Your task to perform on an android device: Open Google Maps and go to "Timeline" Image 0: 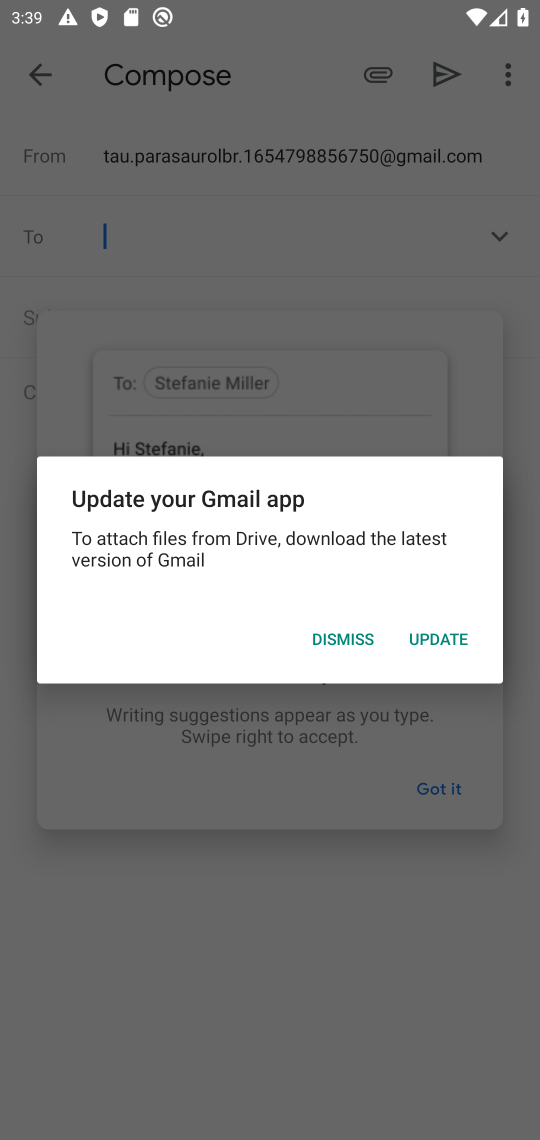
Step 0: press home button
Your task to perform on an android device: Open Google Maps and go to "Timeline" Image 1: 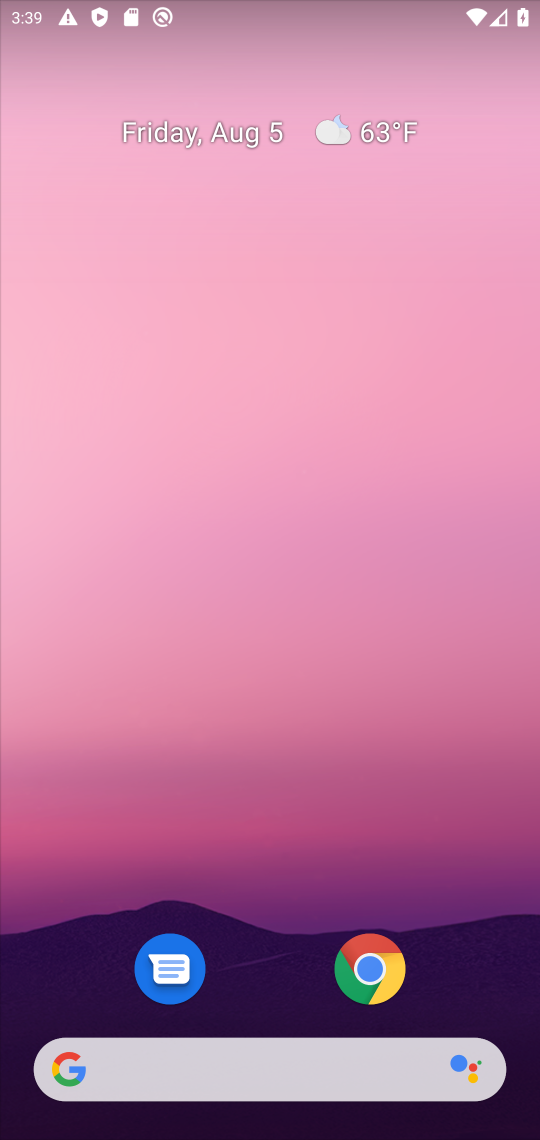
Step 1: drag from (273, 942) to (157, 282)
Your task to perform on an android device: Open Google Maps and go to "Timeline" Image 2: 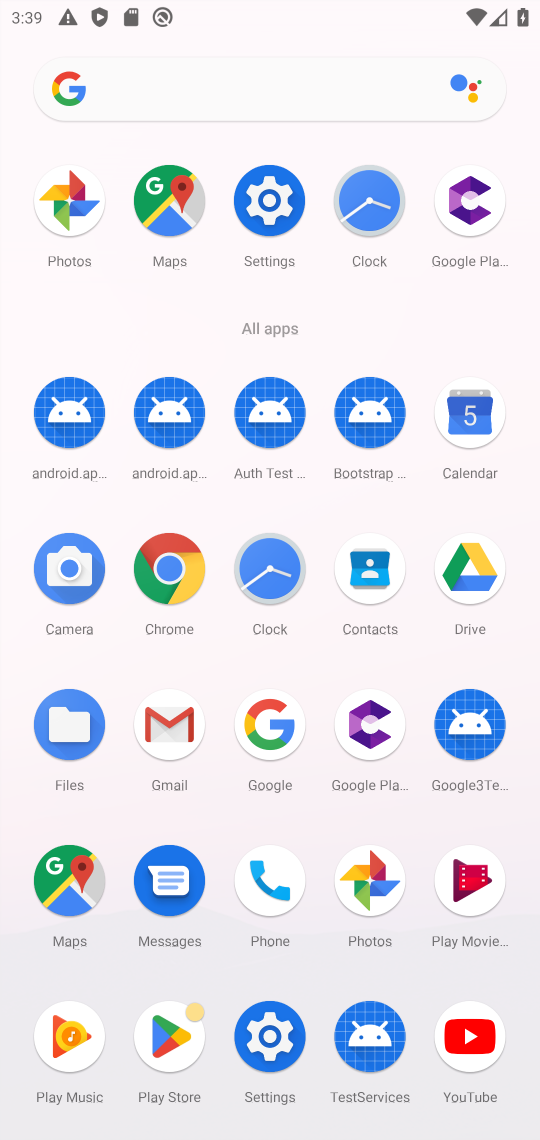
Step 2: drag from (53, 898) to (319, 455)
Your task to perform on an android device: Open Google Maps and go to "Timeline" Image 3: 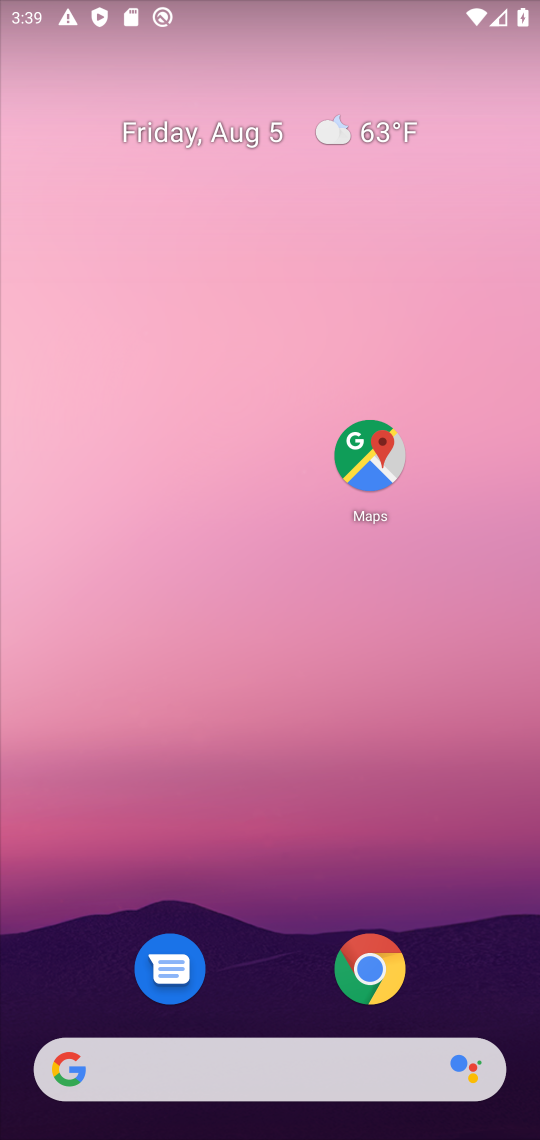
Step 3: click (371, 432)
Your task to perform on an android device: Open Google Maps and go to "Timeline" Image 4: 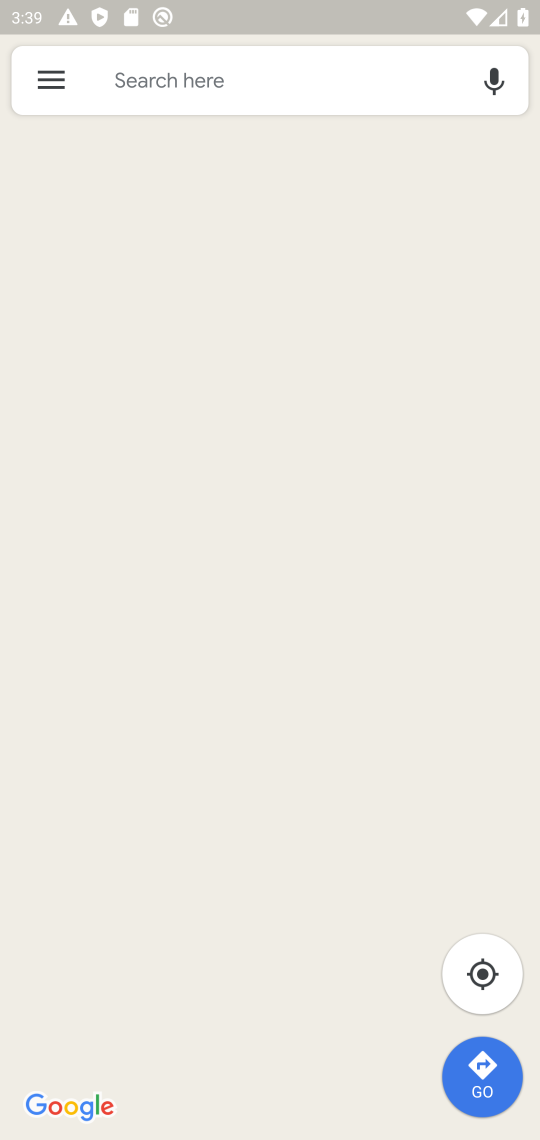
Step 4: click (54, 94)
Your task to perform on an android device: Open Google Maps and go to "Timeline" Image 5: 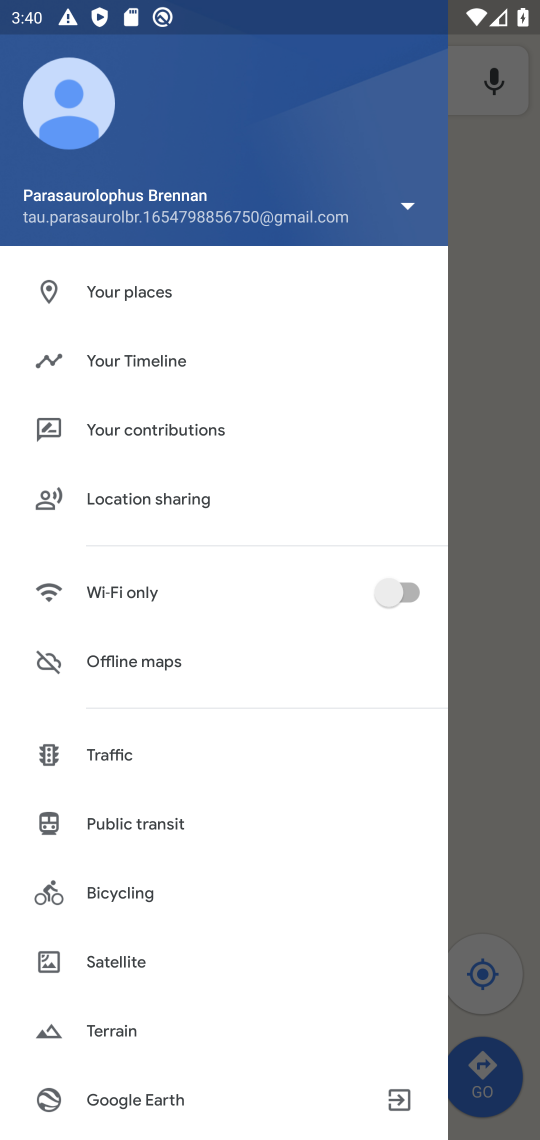
Step 5: drag from (197, 870) to (133, 414)
Your task to perform on an android device: Open Google Maps and go to "Timeline" Image 6: 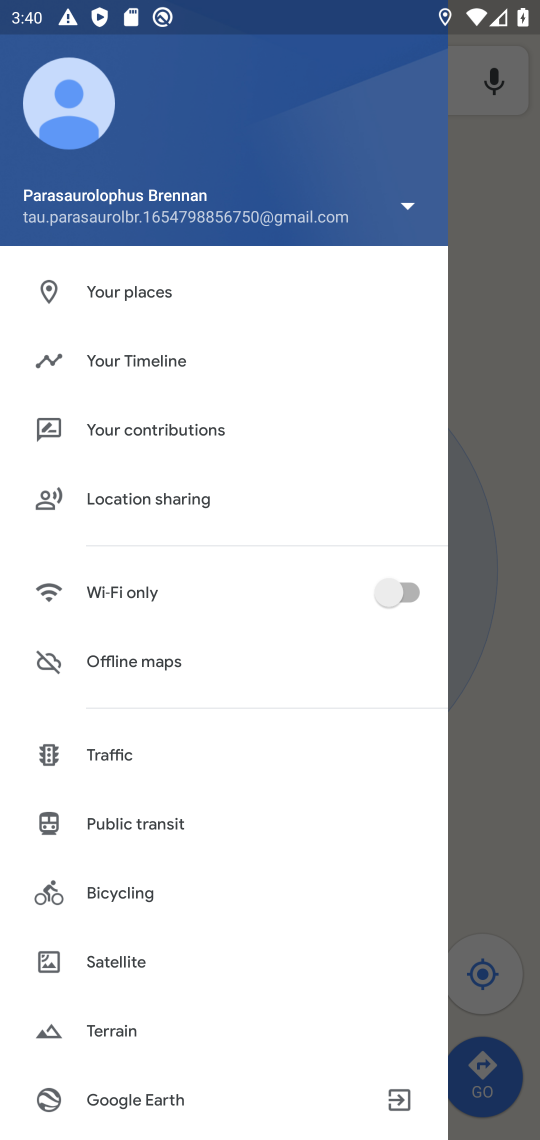
Step 6: click (118, 373)
Your task to perform on an android device: Open Google Maps and go to "Timeline" Image 7: 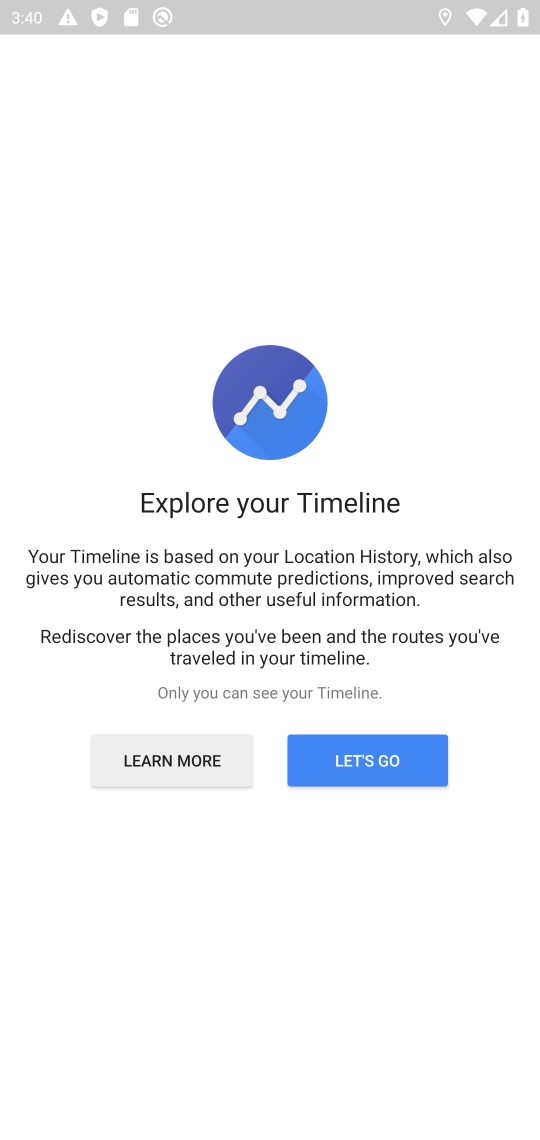
Step 7: click (329, 750)
Your task to perform on an android device: Open Google Maps and go to "Timeline" Image 8: 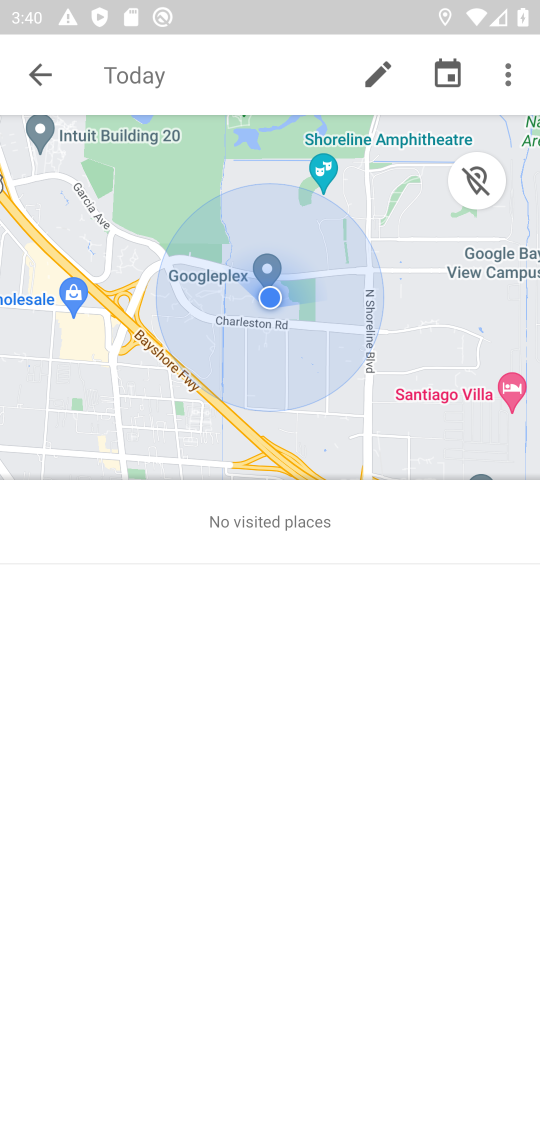
Step 8: task complete